Your task to perform on an android device: Open settings on Google Maps Image 0: 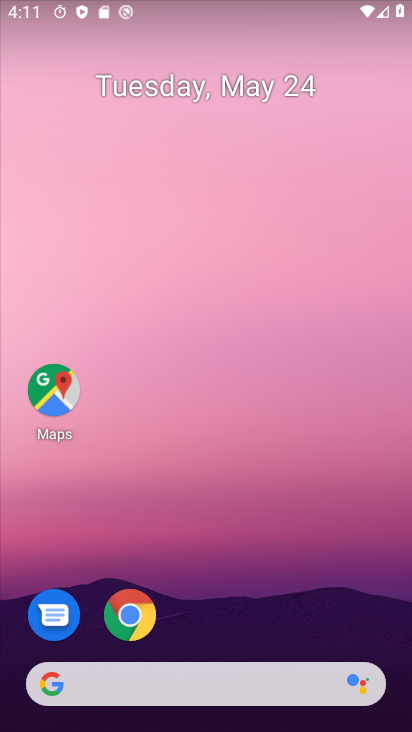
Step 0: click (56, 390)
Your task to perform on an android device: Open settings on Google Maps Image 1: 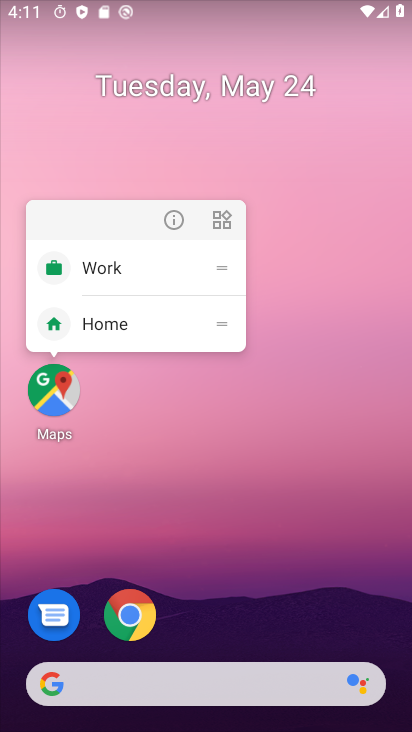
Step 1: click (56, 390)
Your task to perform on an android device: Open settings on Google Maps Image 2: 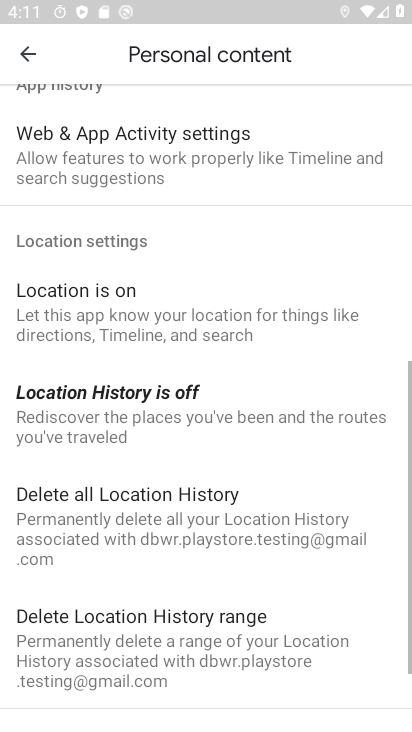
Step 2: task complete